Your task to perform on an android device: open a bookmark in the chrome app Image 0: 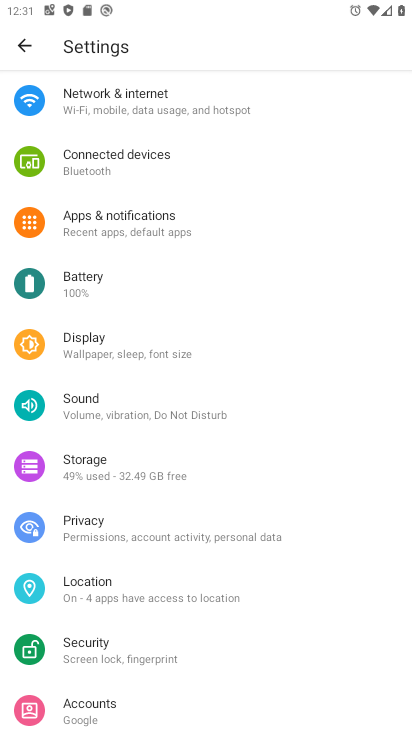
Step 0: press home button
Your task to perform on an android device: open a bookmark in the chrome app Image 1: 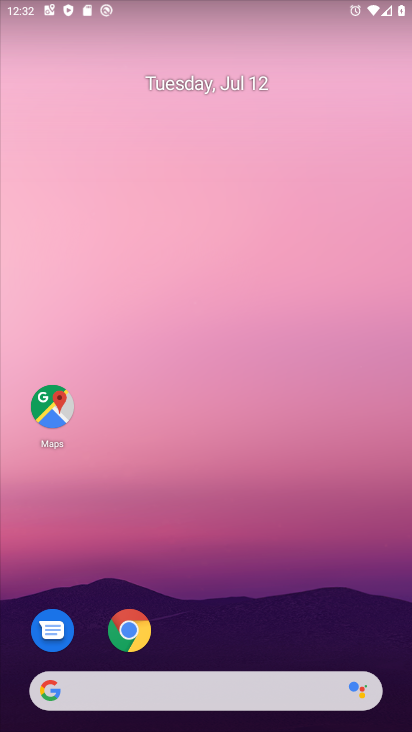
Step 1: click (128, 631)
Your task to perform on an android device: open a bookmark in the chrome app Image 2: 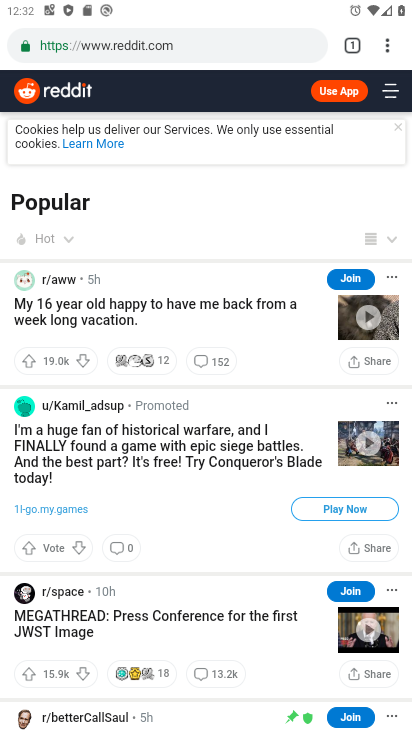
Step 2: click (387, 48)
Your task to perform on an android device: open a bookmark in the chrome app Image 3: 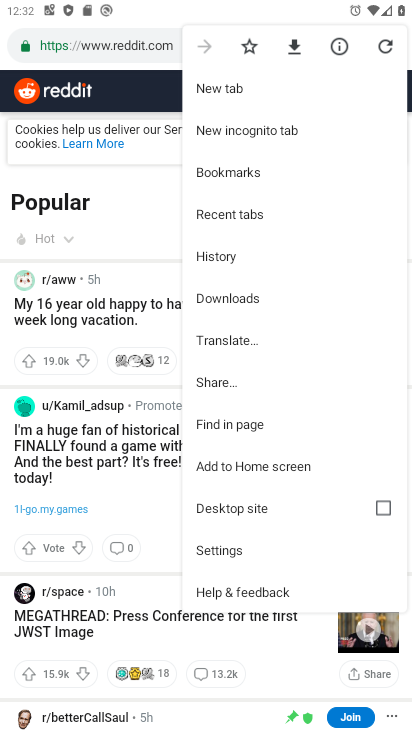
Step 3: click (238, 170)
Your task to perform on an android device: open a bookmark in the chrome app Image 4: 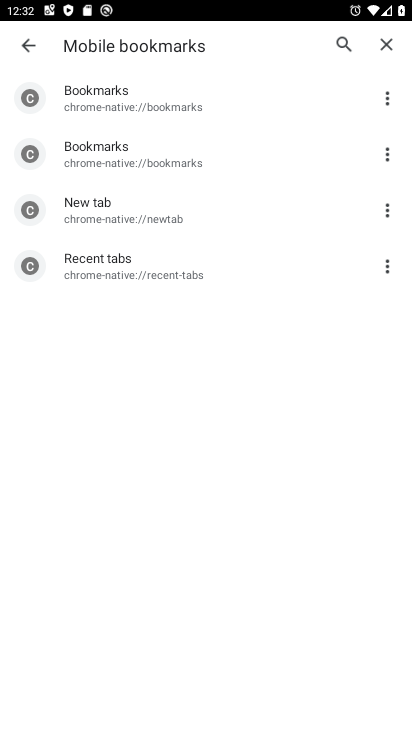
Step 4: task complete